Your task to perform on an android device: Show me popular videos on Youtube Image 0: 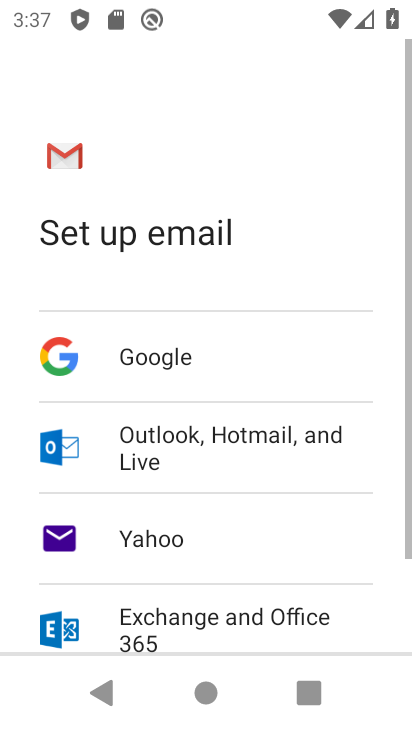
Step 0: press home button
Your task to perform on an android device: Show me popular videos on Youtube Image 1: 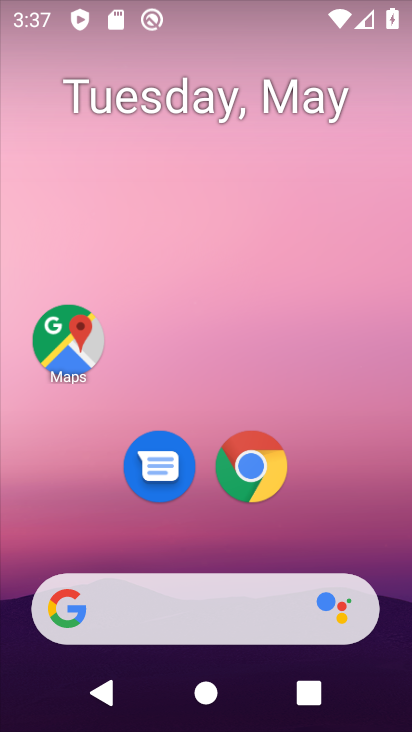
Step 1: drag from (163, 702) to (244, 34)
Your task to perform on an android device: Show me popular videos on Youtube Image 2: 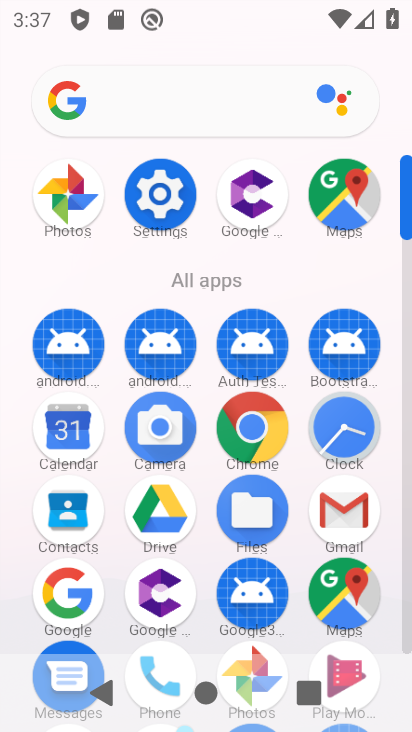
Step 2: drag from (300, 630) to (299, 255)
Your task to perform on an android device: Show me popular videos on Youtube Image 3: 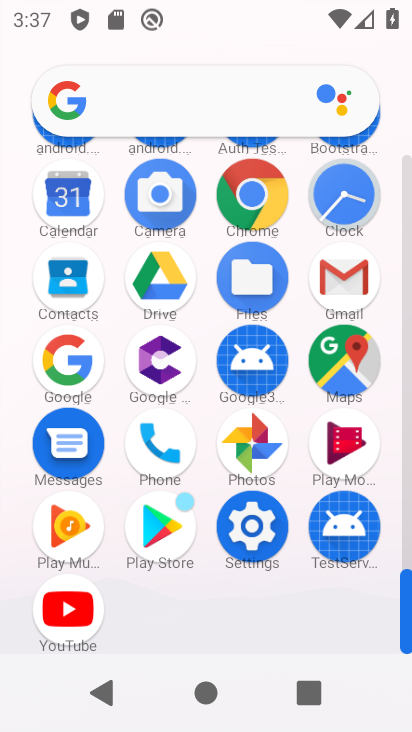
Step 3: click (65, 629)
Your task to perform on an android device: Show me popular videos on Youtube Image 4: 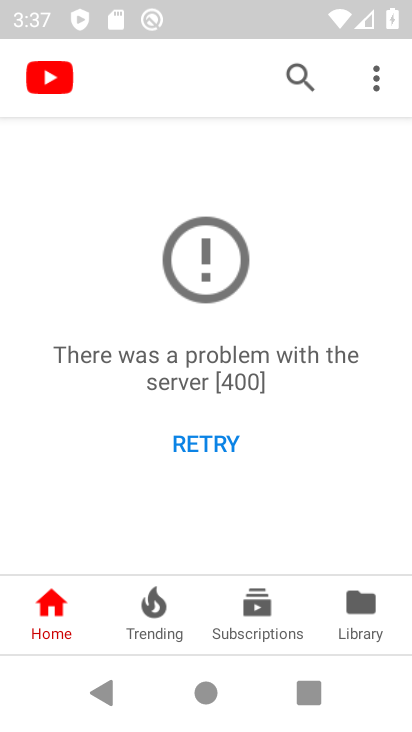
Step 4: click (150, 623)
Your task to perform on an android device: Show me popular videos on Youtube Image 5: 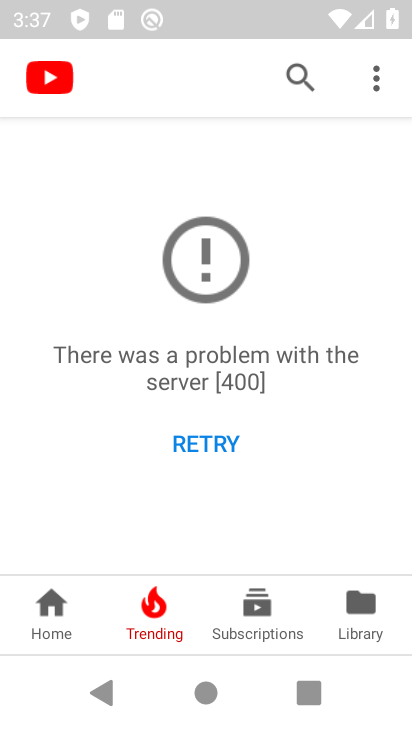
Step 5: click (150, 623)
Your task to perform on an android device: Show me popular videos on Youtube Image 6: 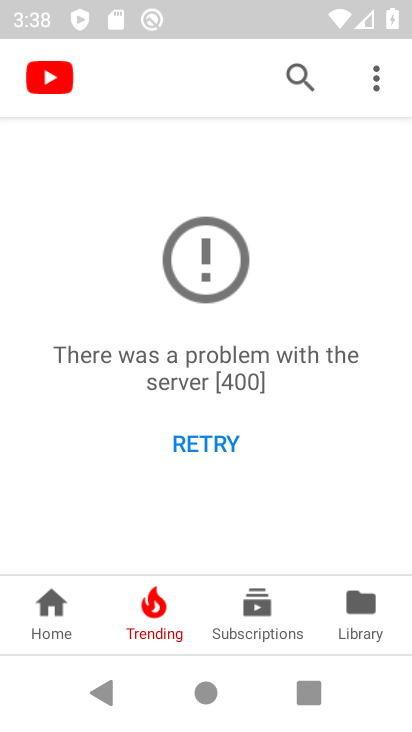
Step 6: task complete